Your task to perform on an android device: Open Youtube and go to the subscriptions tab Image 0: 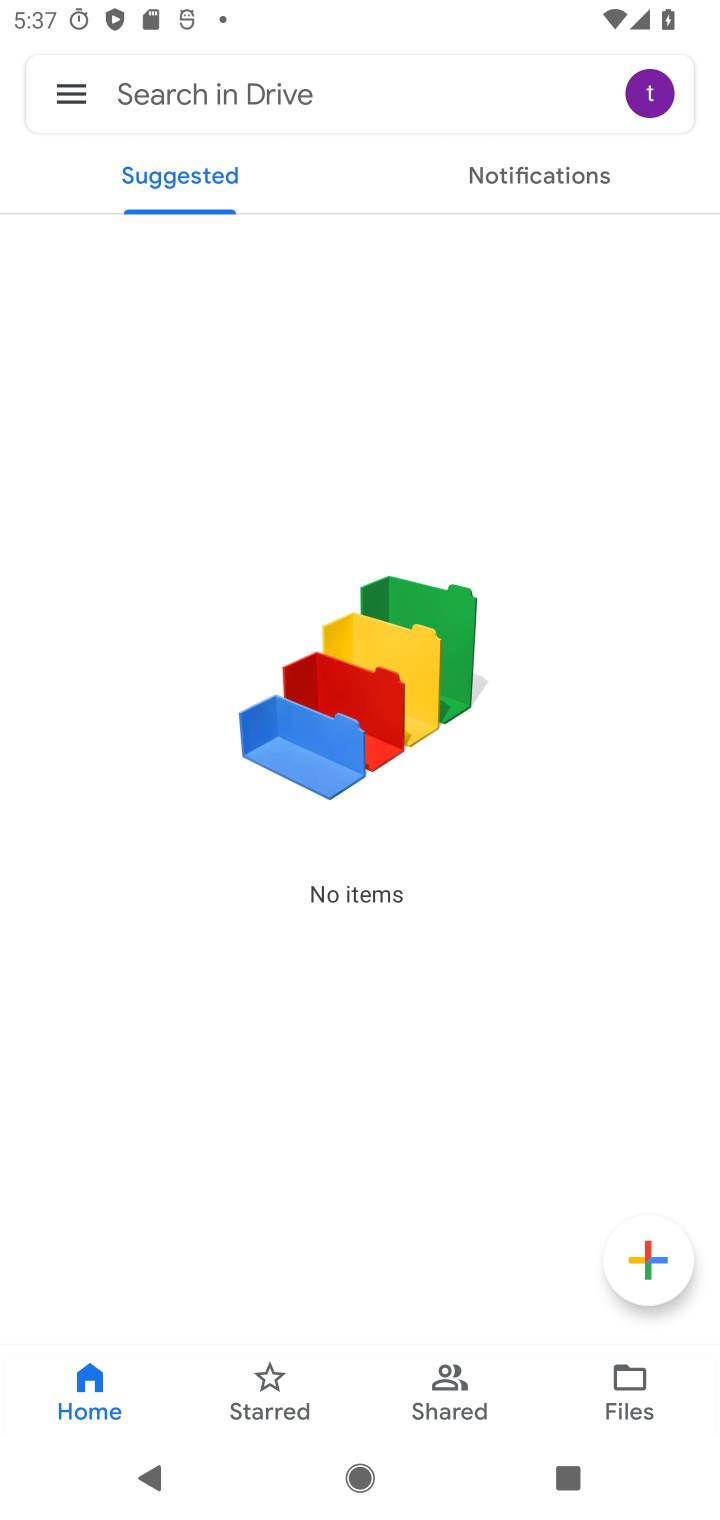
Step 0: press home button
Your task to perform on an android device: Open Youtube and go to the subscriptions tab Image 1: 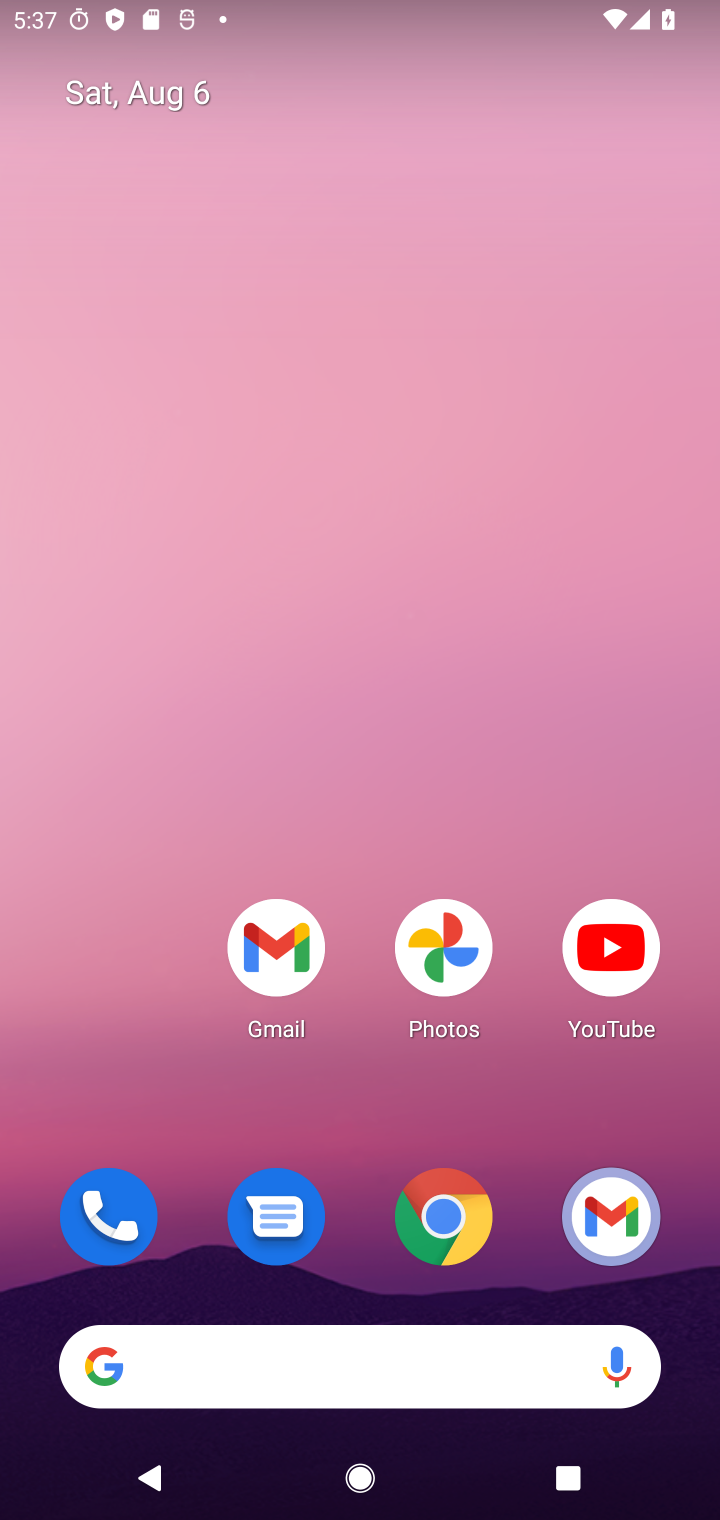
Step 1: drag from (355, 982) to (401, 94)
Your task to perform on an android device: Open Youtube and go to the subscriptions tab Image 2: 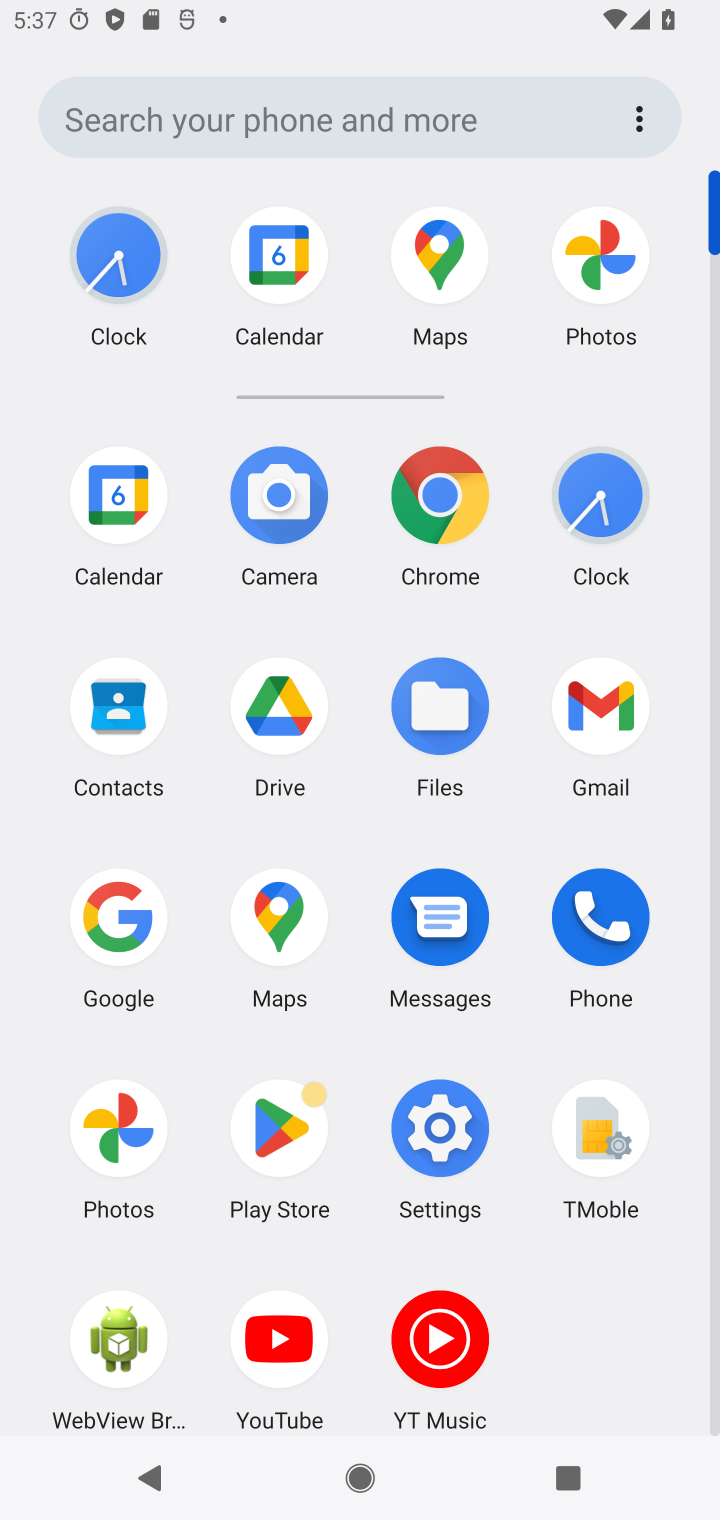
Step 2: click (275, 1358)
Your task to perform on an android device: Open Youtube and go to the subscriptions tab Image 3: 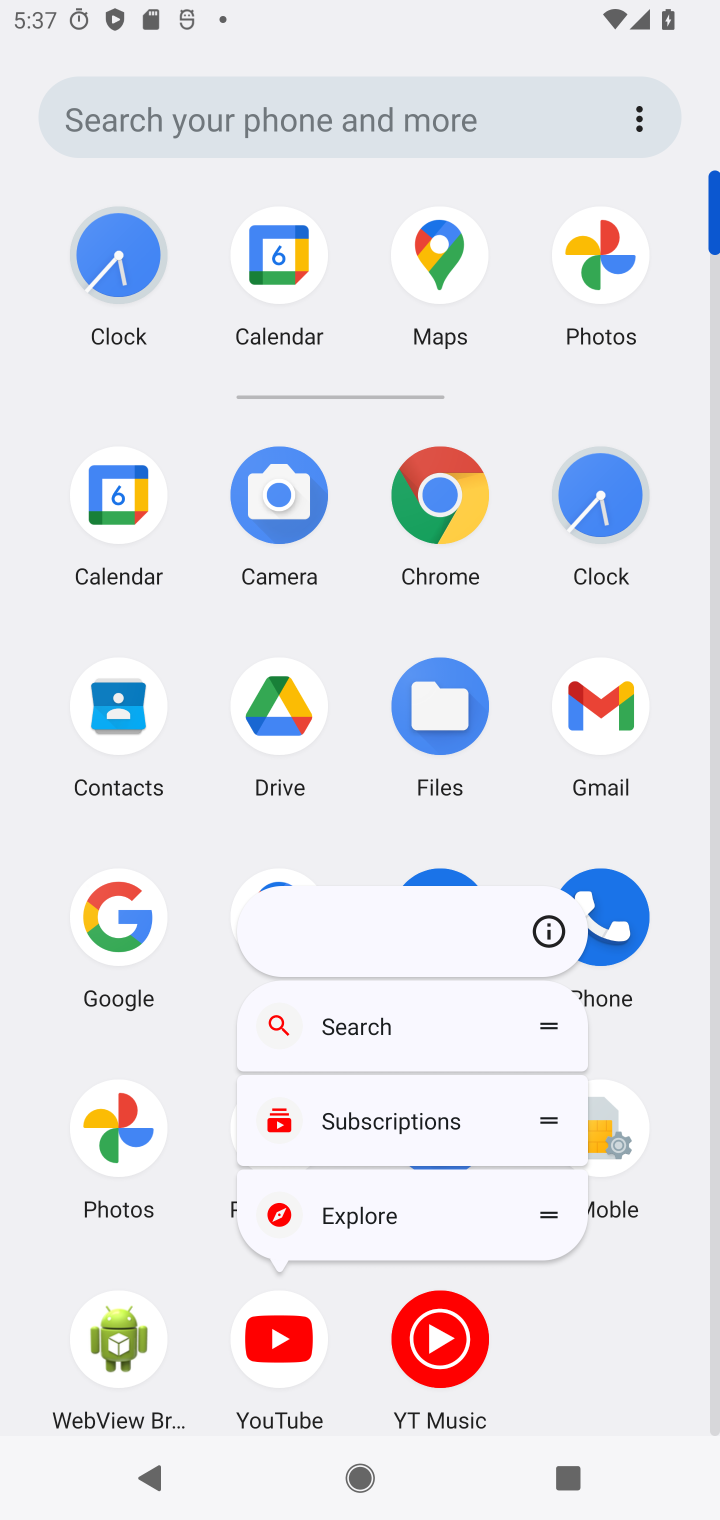
Step 3: click (292, 1333)
Your task to perform on an android device: Open Youtube and go to the subscriptions tab Image 4: 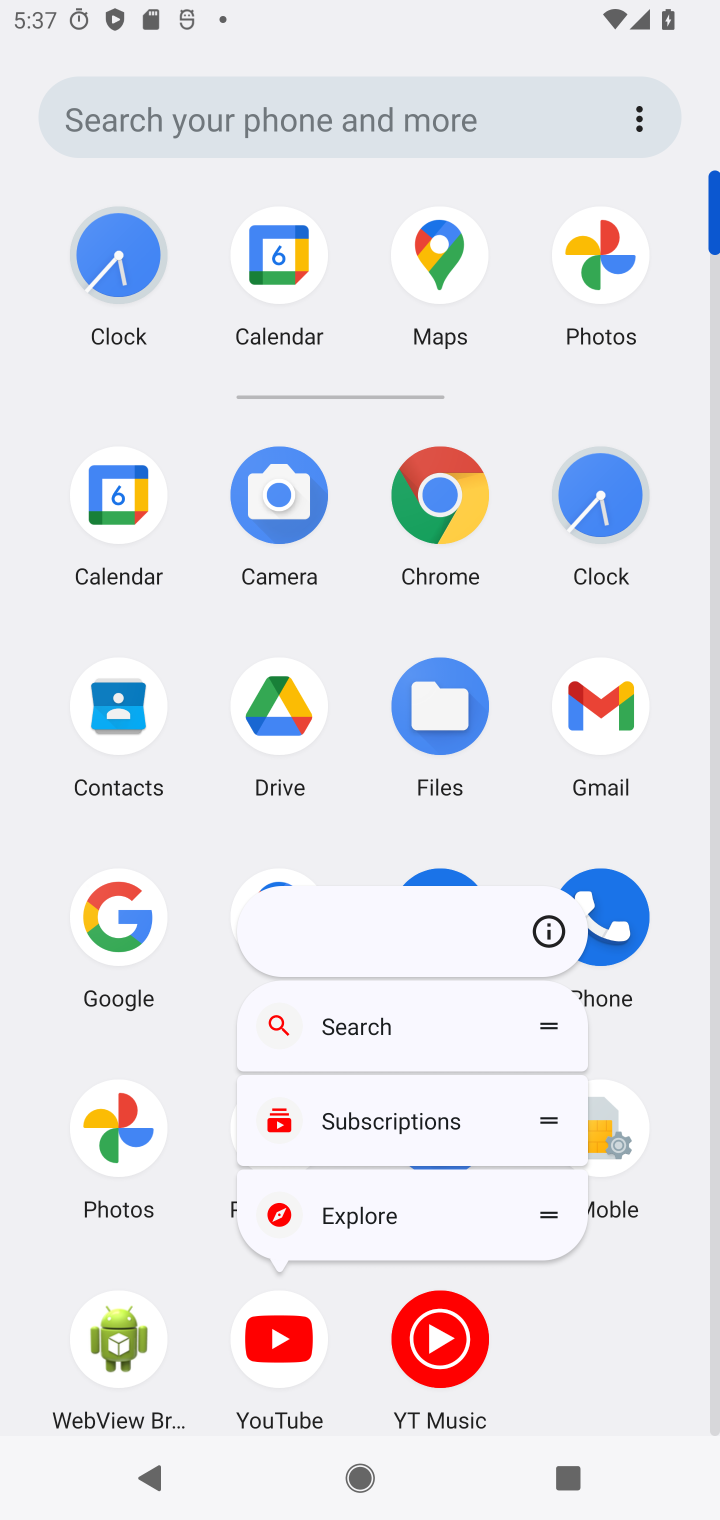
Step 4: click (277, 1333)
Your task to perform on an android device: Open Youtube and go to the subscriptions tab Image 5: 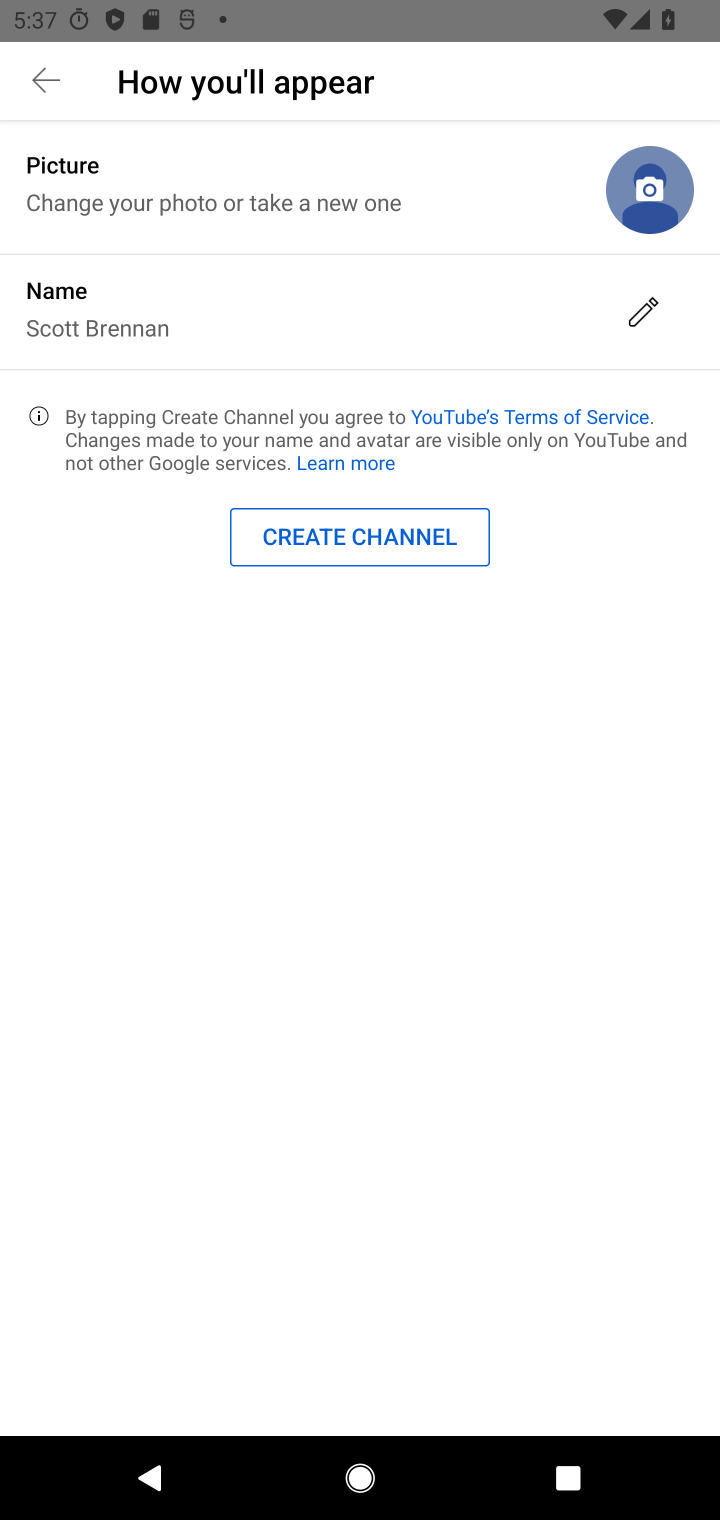
Step 5: press back button
Your task to perform on an android device: Open Youtube and go to the subscriptions tab Image 6: 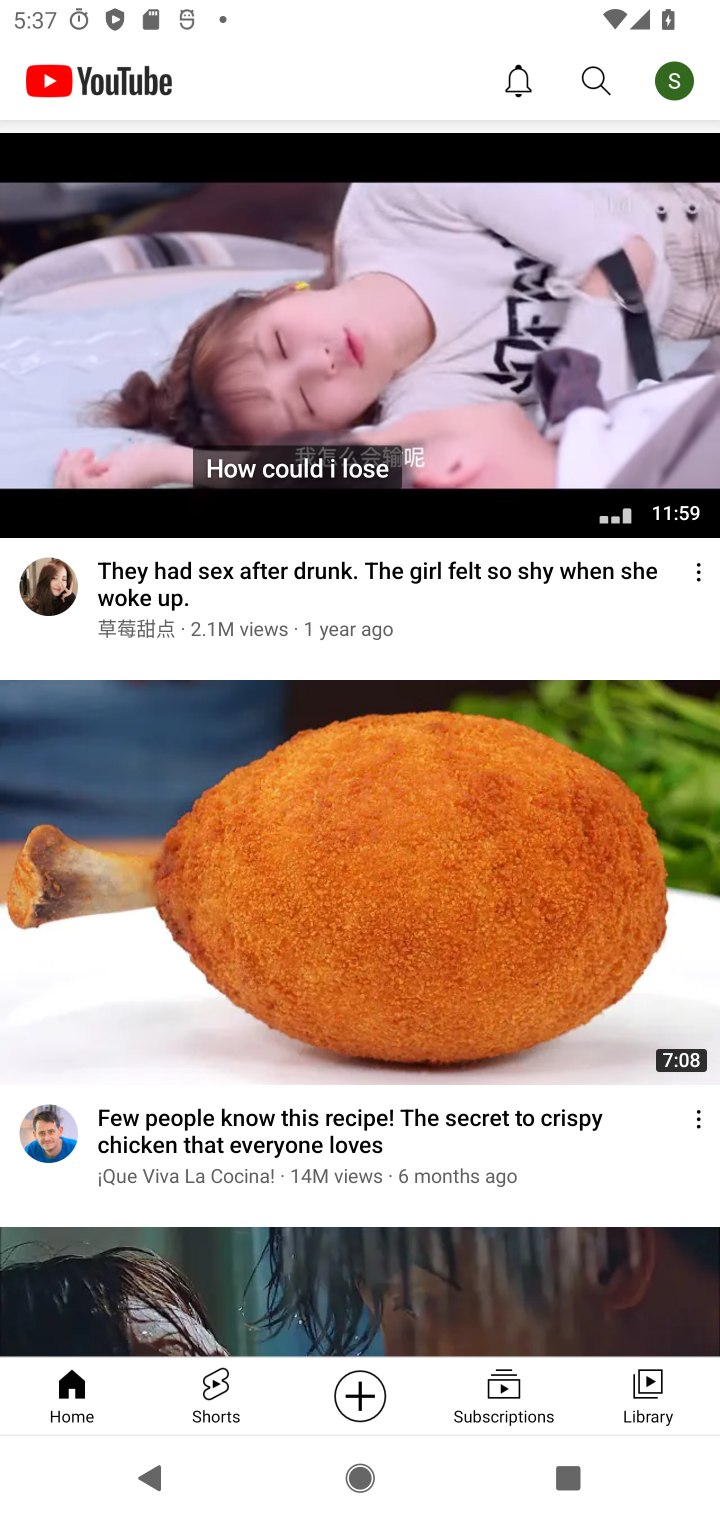
Step 6: click (487, 1388)
Your task to perform on an android device: Open Youtube and go to the subscriptions tab Image 7: 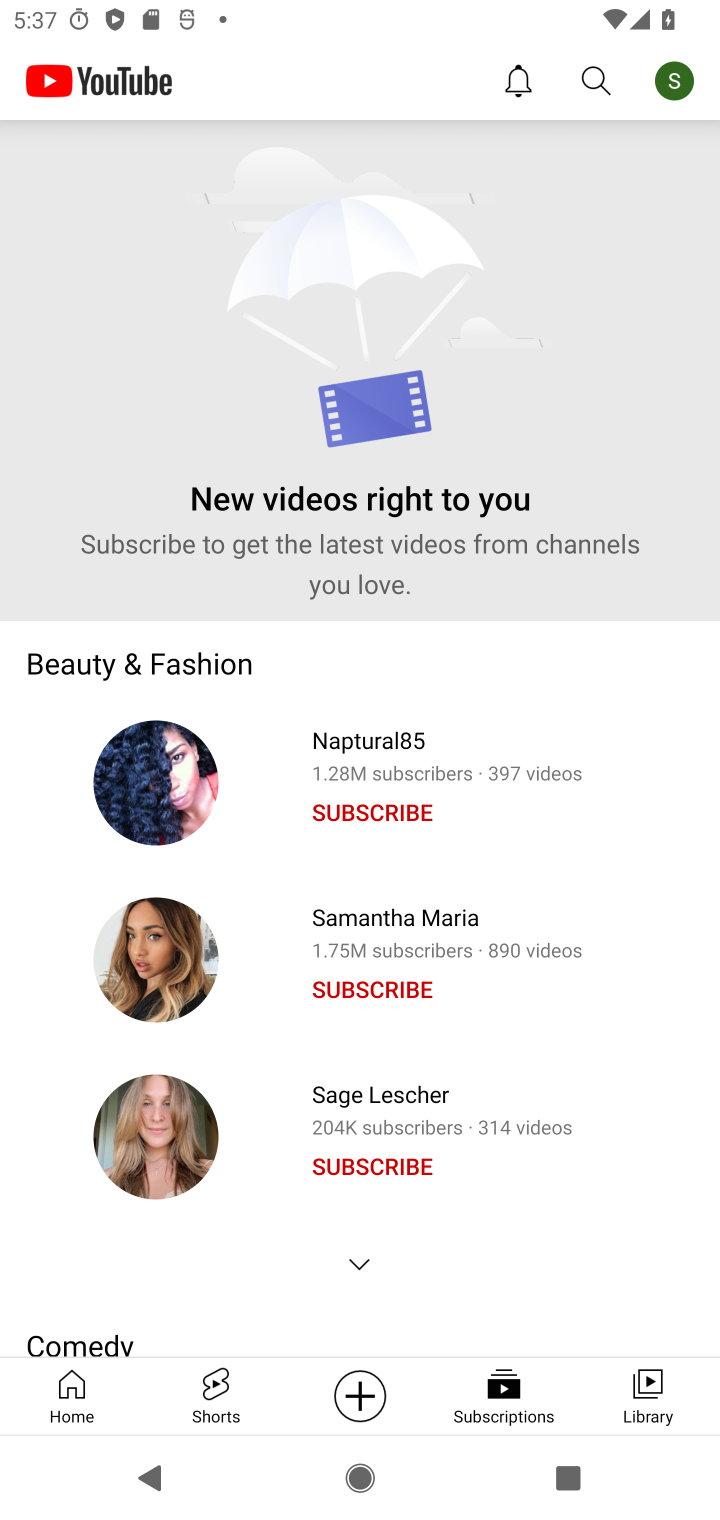
Step 7: task complete